Your task to perform on an android device: Set the phone to "Do not disturb". Image 0: 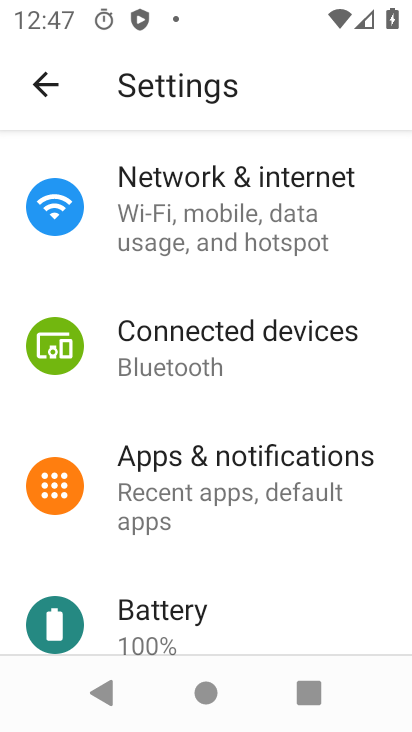
Step 0: drag from (200, 559) to (221, 381)
Your task to perform on an android device: Set the phone to "Do not disturb". Image 1: 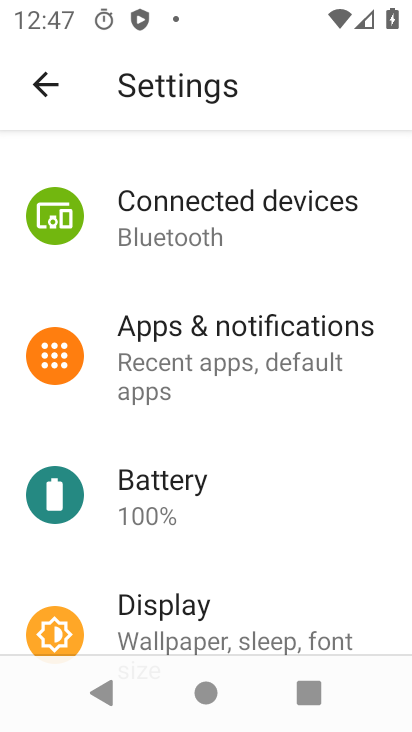
Step 1: click (213, 604)
Your task to perform on an android device: Set the phone to "Do not disturb". Image 2: 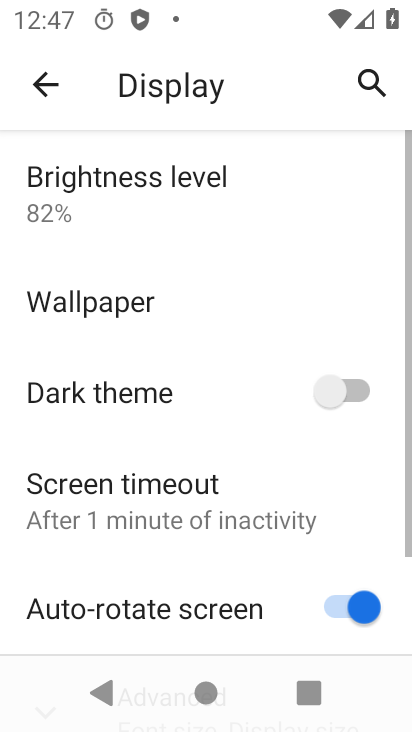
Step 2: drag from (210, 560) to (213, 289)
Your task to perform on an android device: Set the phone to "Do not disturb". Image 3: 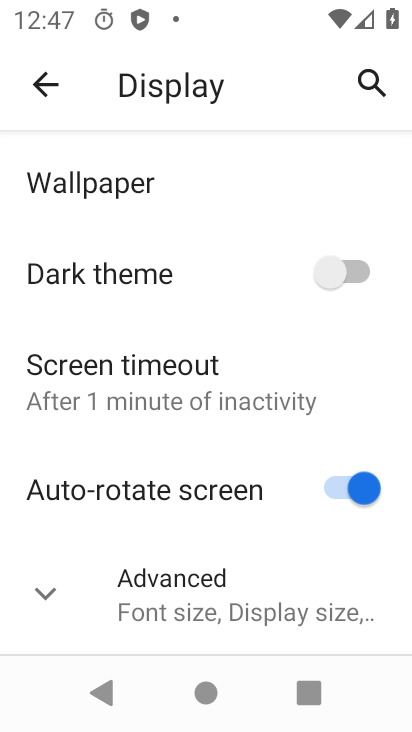
Step 3: drag from (171, 515) to (197, 251)
Your task to perform on an android device: Set the phone to "Do not disturb". Image 4: 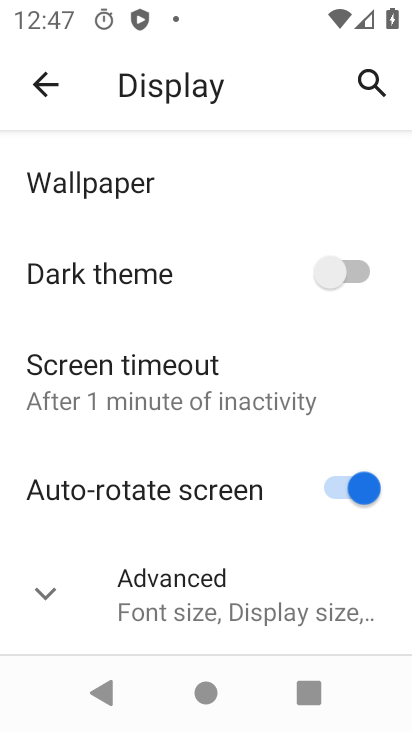
Step 4: press back button
Your task to perform on an android device: Set the phone to "Do not disturb". Image 5: 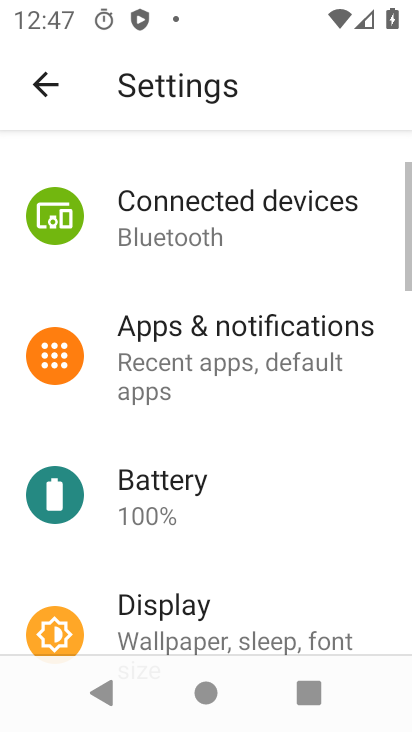
Step 5: drag from (251, 561) to (252, 472)
Your task to perform on an android device: Set the phone to "Do not disturb". Image 6: 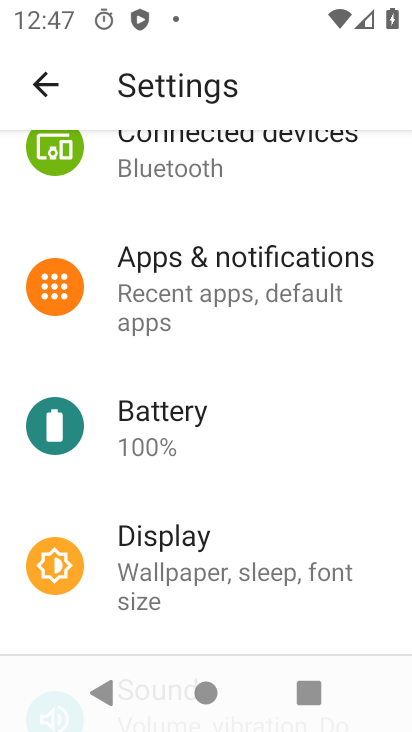
Step 6: drag from (212, 487) to (212, 338)
Your task to perform on an android device: Set the phone to "Do not disturb". Image 7: 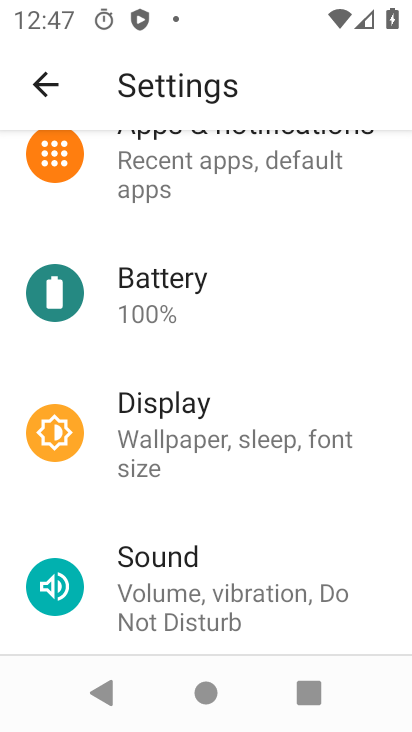
Step 7: click (190, 567)
Your task to perform on an android device: Set the phone to "Do not disturb". Image 8: 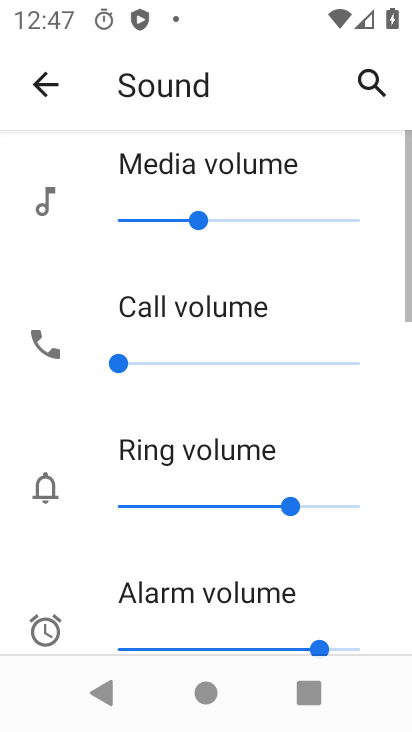
Step 8: drag from (224, 568) to (245, 241)
Your task to perform on an android device: Set the phone to "Do not disturb". Image 9: 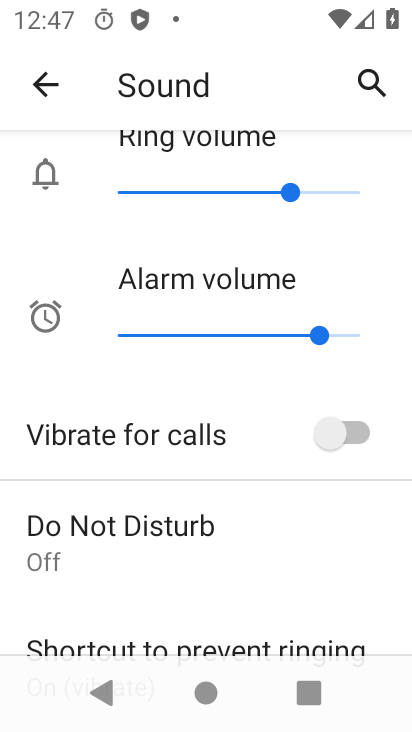
Step 9: click (189, 532)
Your task to perform on an android device: Set the phone to "Do not disturb". Image 10: 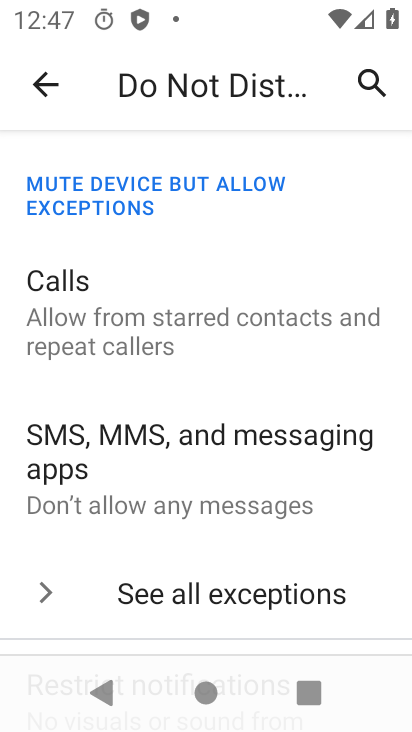
Step 10: drag from (238, 505) to (237, 127)
Your task to perform on an android device: Set the phone to "Do not disturb". Image 11: 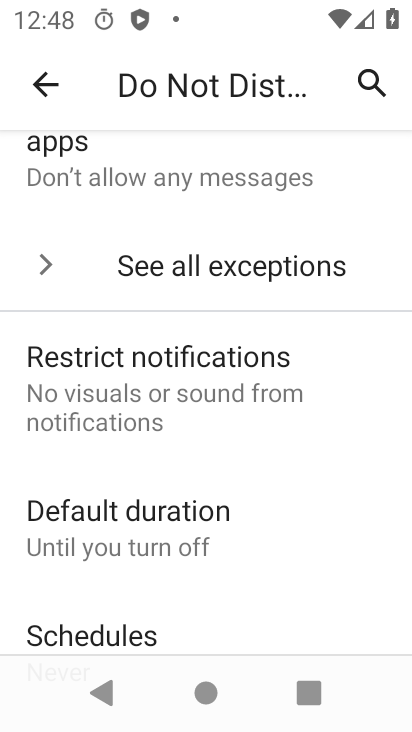
Step 11: drag from (112, 517) to (180, 149)
Your task to perform on an android device: Set the phone to "Do not disturb". Image 12: 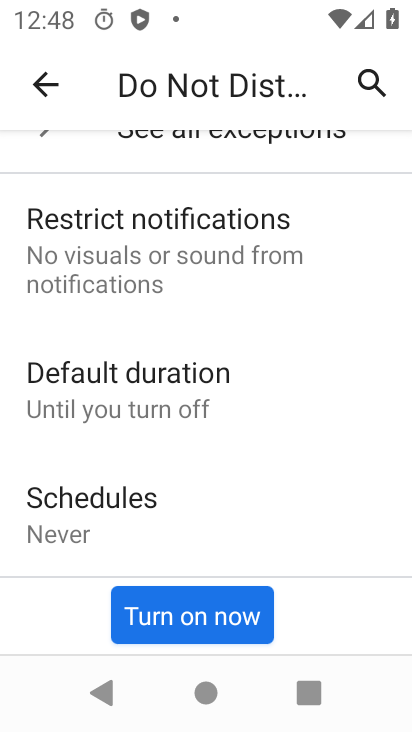
Step 12: click (248, 623)
Your task to perform on an android device: Set the phone to "Do not disturb". Image 13: 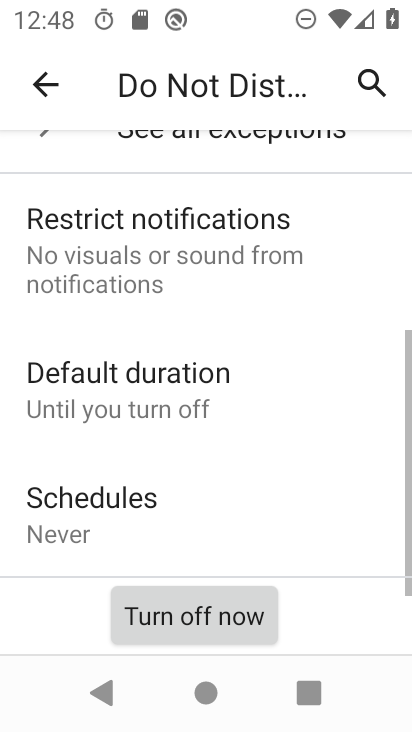
Step 13: task complete